Your task to perform on an android device: Open internet settings Image 0: 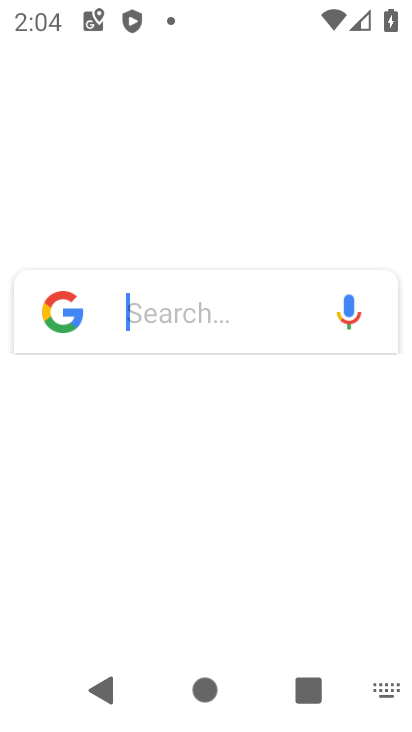
Step 0: drag from (392, 656) to (241, 97)
Your task to perform on an android device: Open internet settings Image 1: 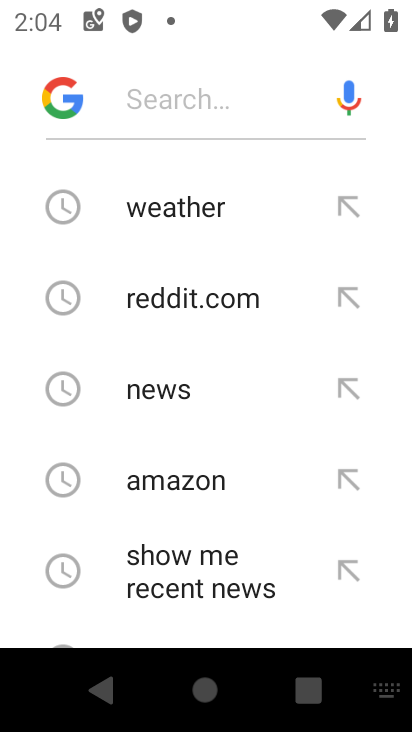
Step 1: press home button
Your task to perform on an android device: Open internet settings Image 2: 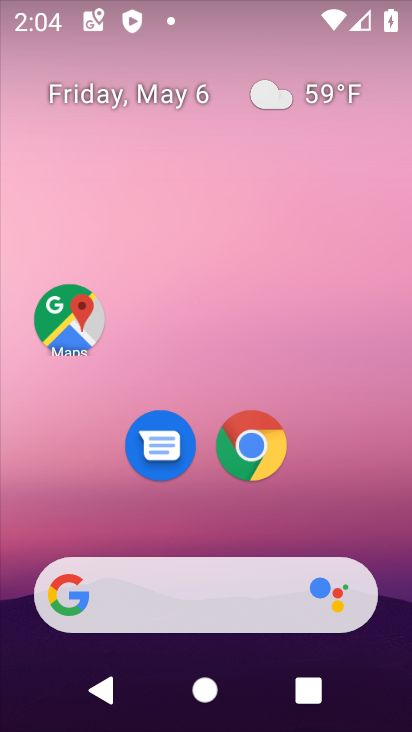
Step 2: drag from (386, 643) to (228, 45)
Your task to perform on an android device: Open internet settings Image 3: 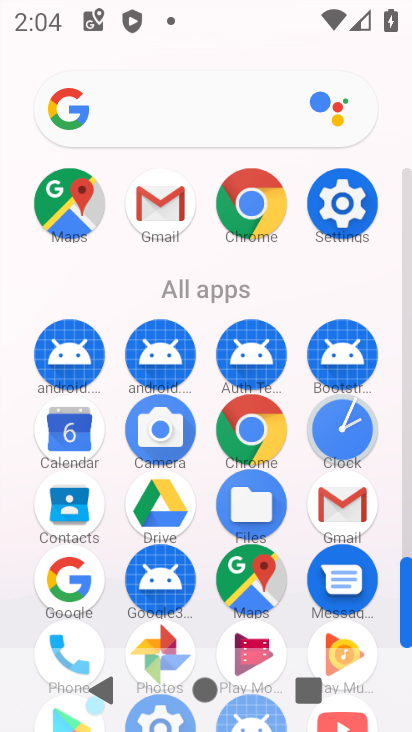
Step 3: click (255, 202)
Your task to perform on an android device: Open internet settings Image 4: 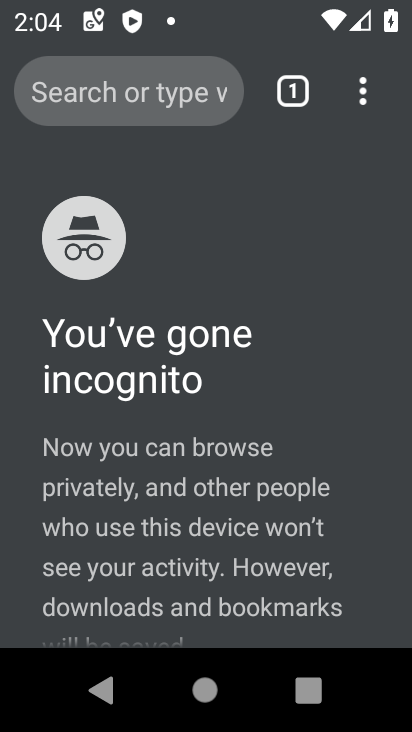
Step 4: press home button
Your task to perform on an android device: Open internet settings Image 5: 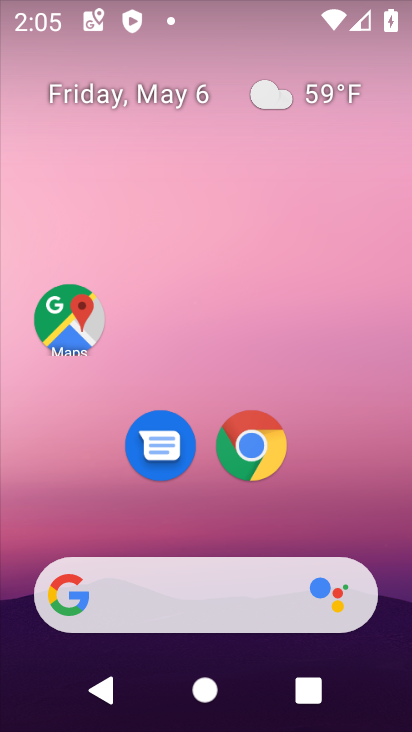
Step 5: click (375, 553)
Your task to perform on an android device: Open internet settings Image 6: 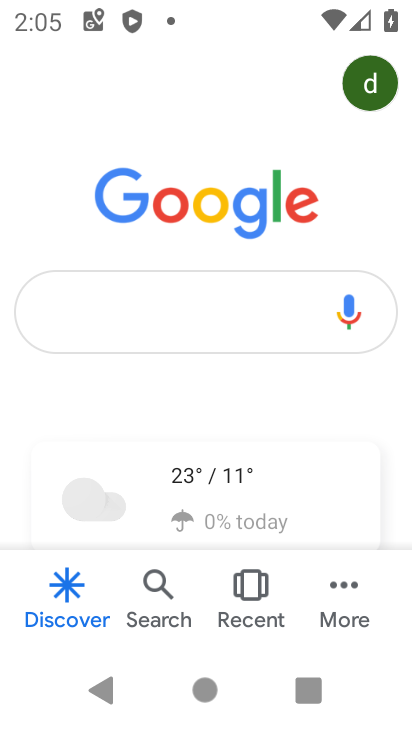
Step 6: press home button
Your task to perform on an android device: Open internet settings Image 7: 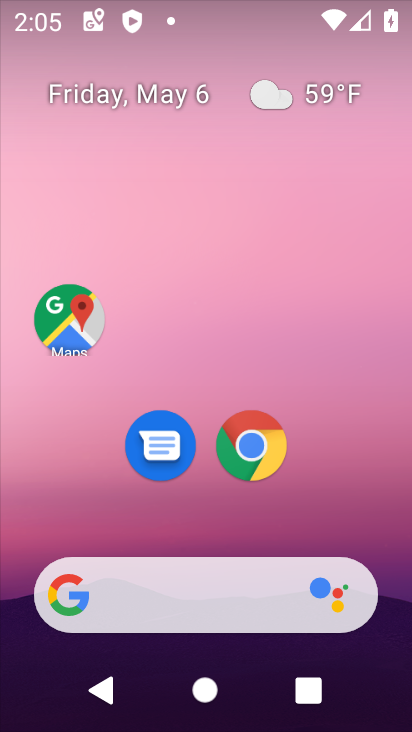
Step 7: drag from (291, 387) to (231, 142)
Your task to perform on an android device: Open internet settings Image 8: 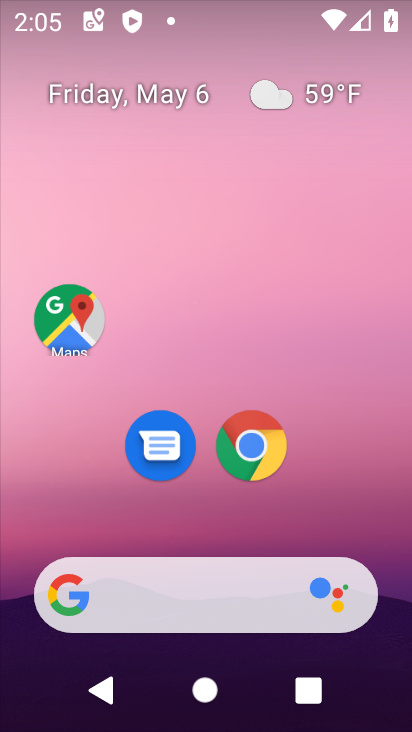
Step 8: drag from (325, 541) to (237, 164)
Your task to perform on an android device: Open internet settings Image 9: 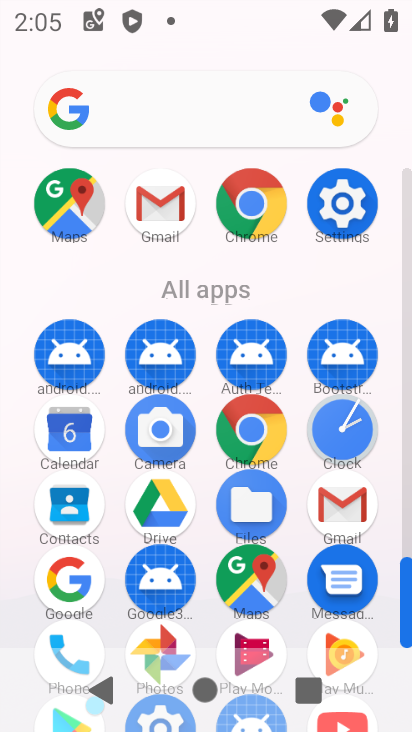
Step 9: click (351, 205)
Your task to perform on an android device: Open internet settings Image 10: 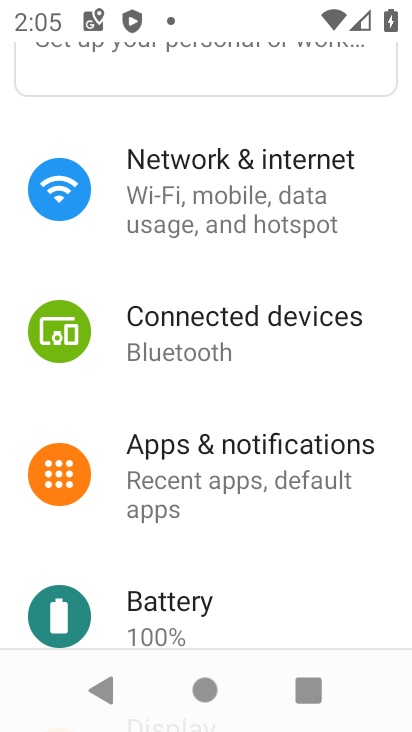
Step 10: task complete